Your task to perform on an android device: turn notification dots off Image 0: 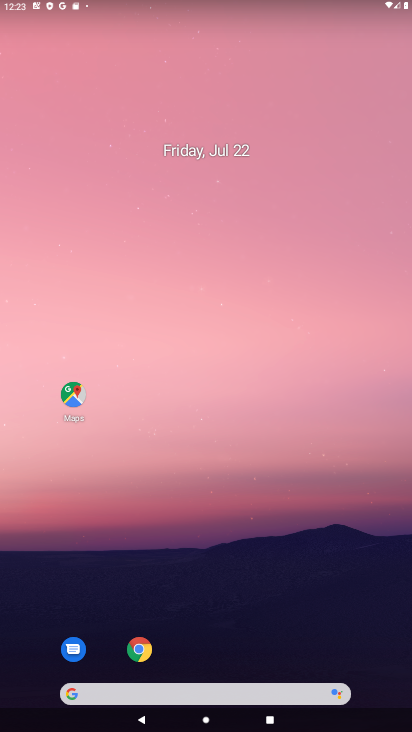
Step 0: drag from (236, 728) to (237, 198)
Your task to perform on an android device: turn notification dots off Image 1: 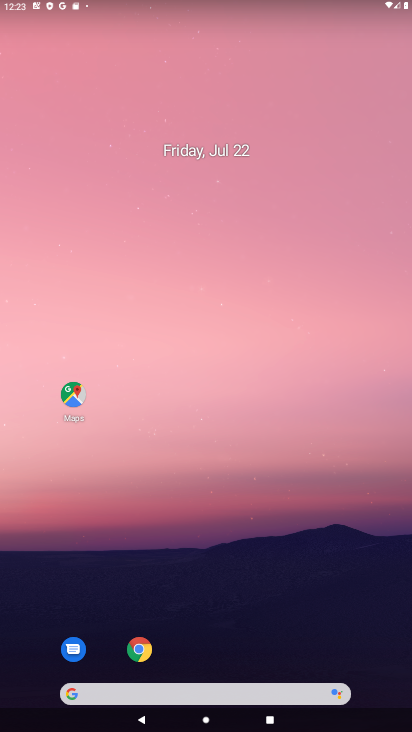
Step 1: drag from (228, 726) to (229, 28)
Your task to perform on an android device: turn notification dots off Image 2: 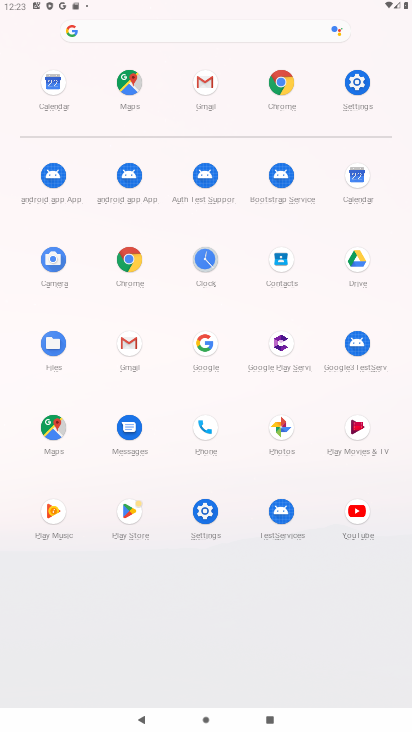
Step 2: click (349, 84)
Your task to perform on an android device: turn notification dots off Image 3: 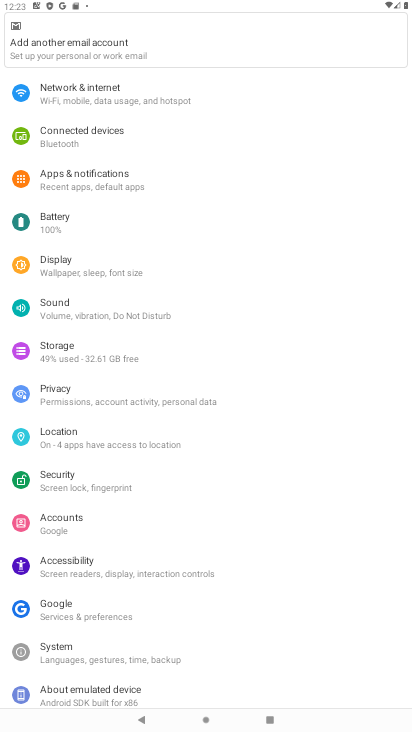
Step 3: click (81, 182)
Your task to perform on an android device: turn notification dots off Image 4: 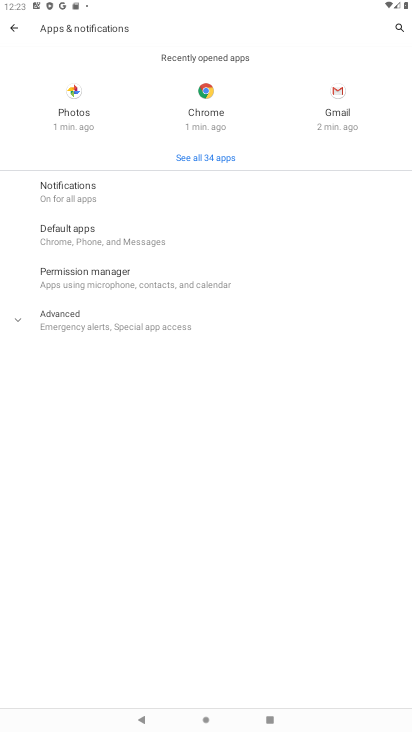
Step 4: click (69, 198)
Your task to perform on an android device: turn notification dots off Image 5: 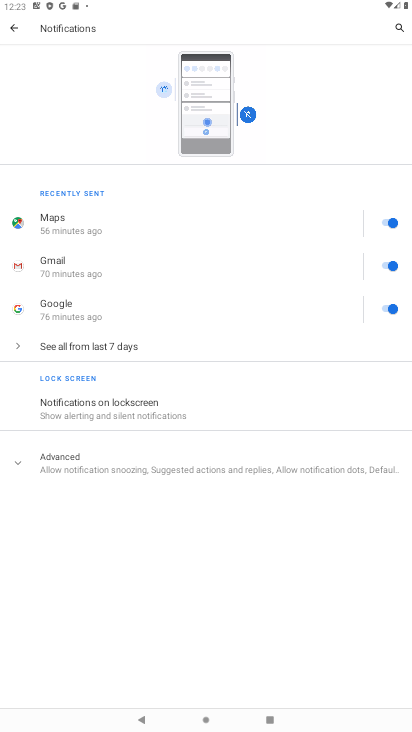
Step 5: click (87, 462)
Your task to perform on an android device: turn notification dots off Image 6: 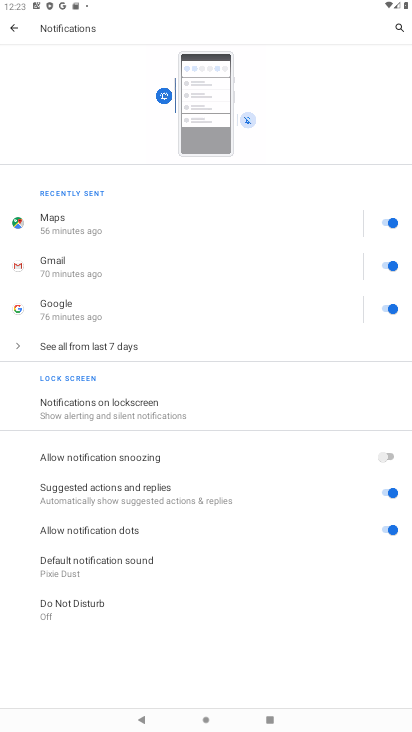
Step 6: click (385, 530)
Your task to perform on an android device: turn notification dots off Image 7: 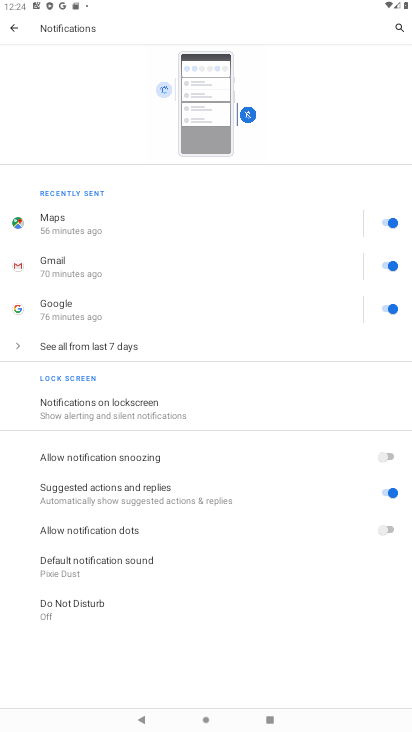
Step 7: task complete